Your task to perform on an android device: Open sound settings Image 0: 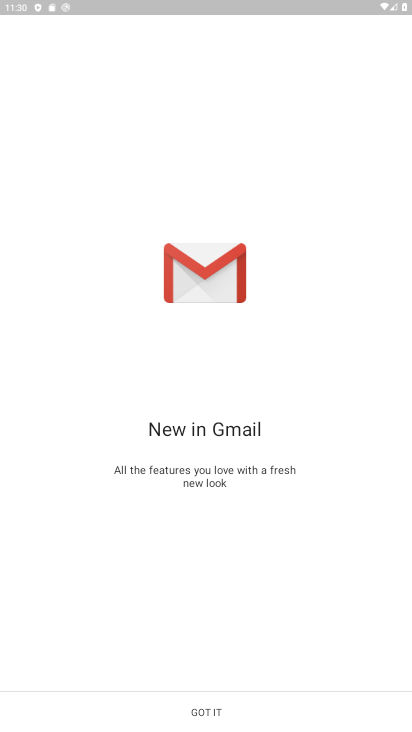
Step 0: press home button
Your task to perform on an android device: Open sound settings Image 1: 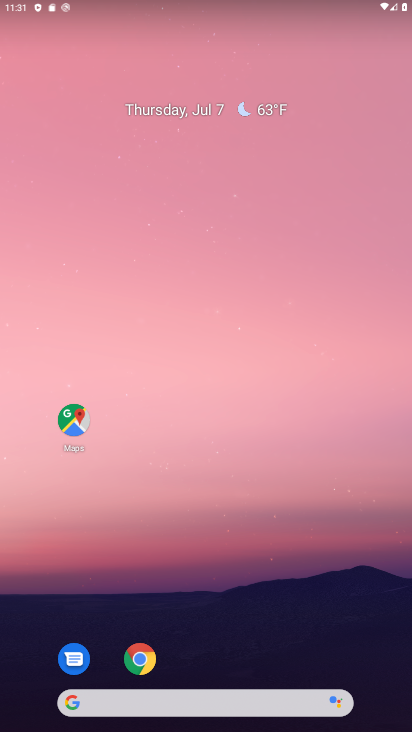
Step 1: drag from (210, 585) to (248, 11)
Your task to perform on an android device: Open sound settings Image 2: 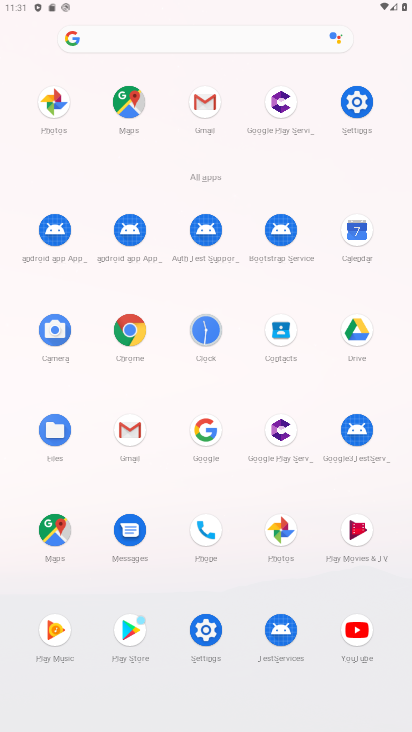
Step 2: click (187, 636)
Your task to perform on an android device: Open sound settings Image 3: 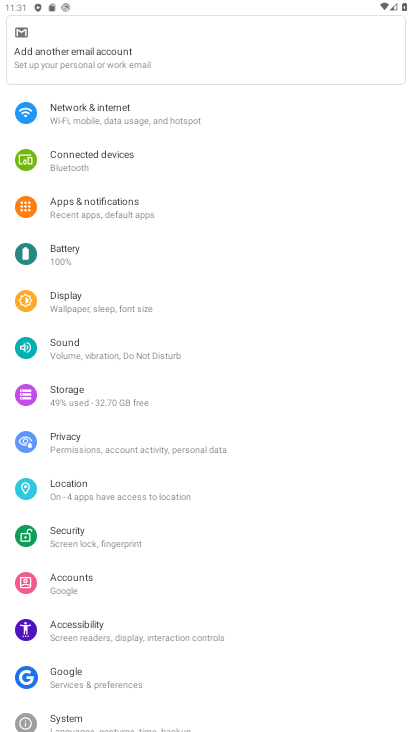
Step 3: click (87, 360)
Your task to perform on an android device: Open sound settings Image 4: 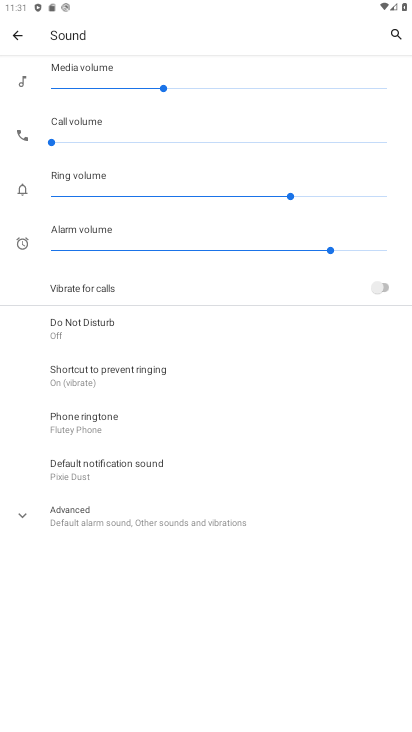
Step 4: task complete